Your task to perform on an android device: Show me recent news Image 0: 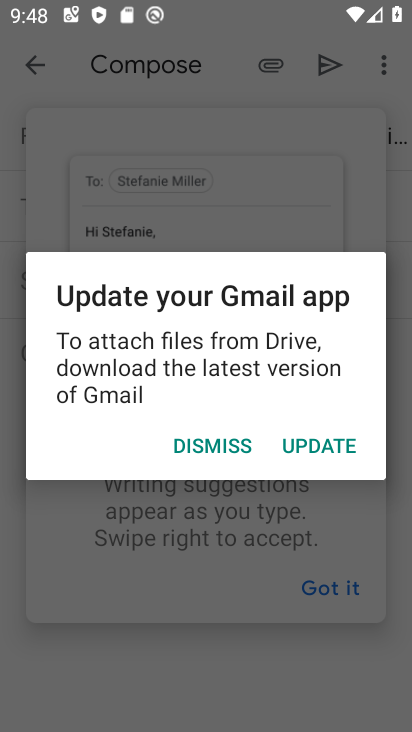
Step 0: press home button
Your task to perform on an android device: Show me recent news Image 1: 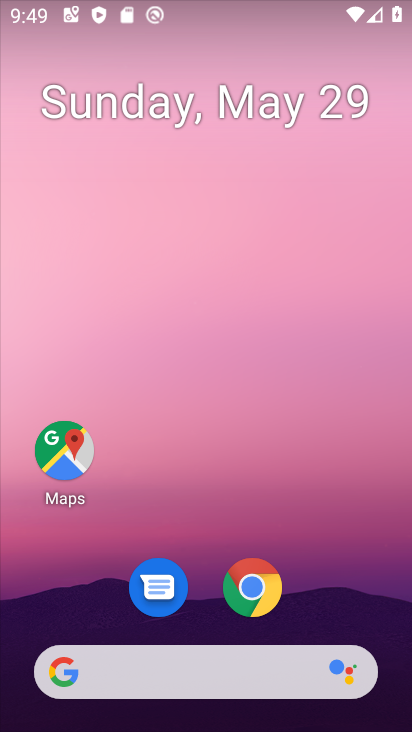
Step 1: click (161, 681)
Your task to perform on an android device: Show me recent news Image 2: 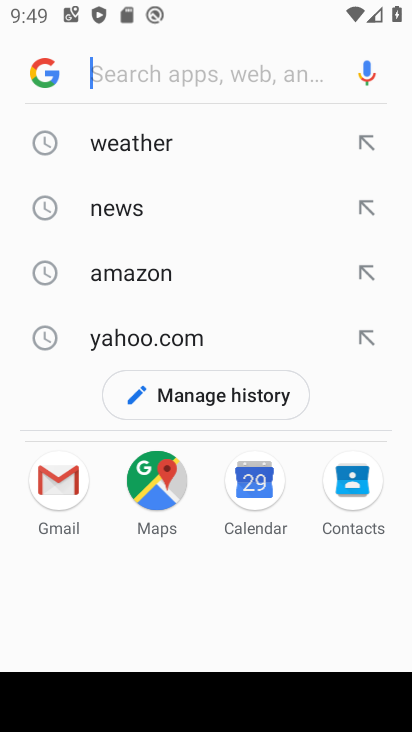
Step 2: type "recent news"
Your task to perform on an android device: Show me recent news Image 3: 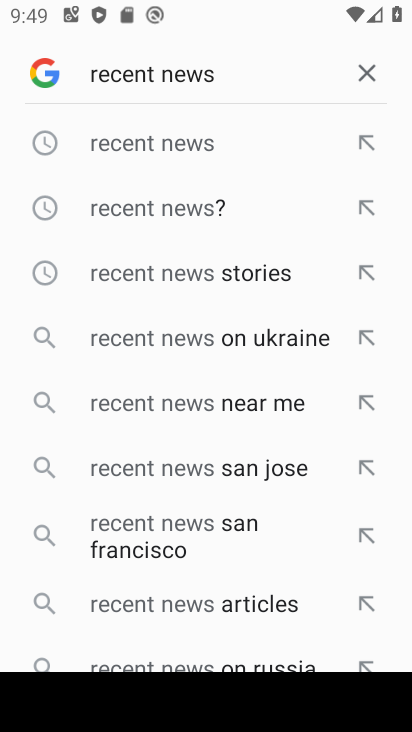
Step 3: click (143, 146)
Your task to perform on an android device: Show me recent news Image 4: 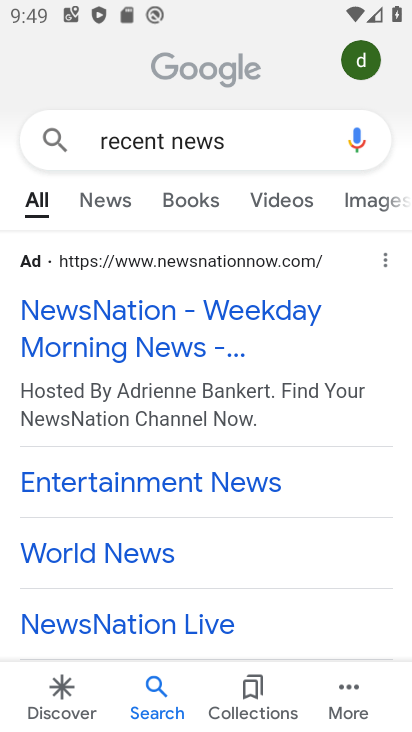
Step 4: task complete